Your task to perform on an android device: open wifi settings Image 0: 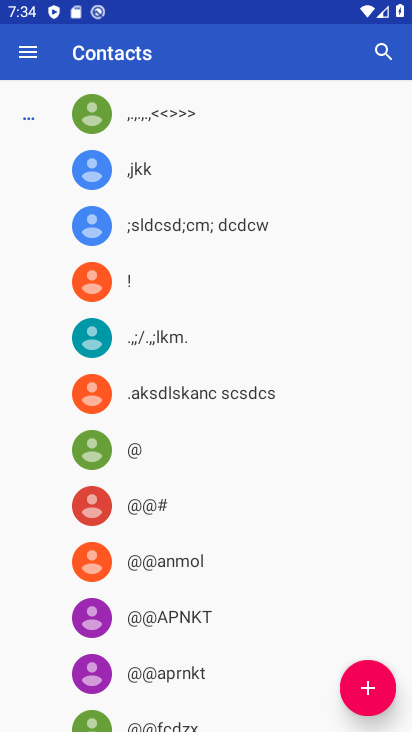
Step 0: press home button
Your task to perform on an android device: open wifi settings Image 1: 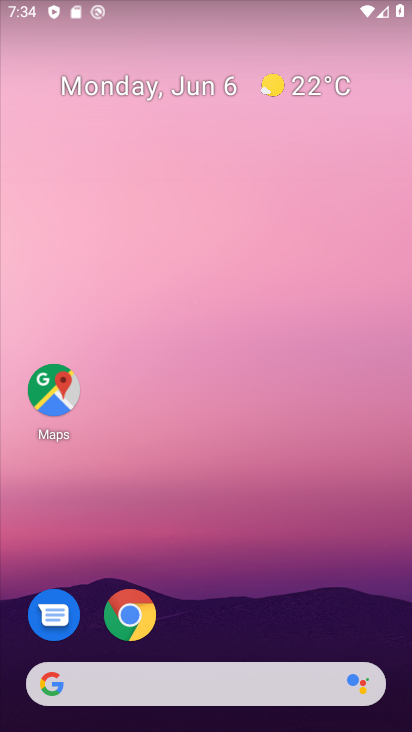
Step 1: drag from (392, 516) to (368, 27)
Your task to perform on an android device: open wifi settings Image 2: 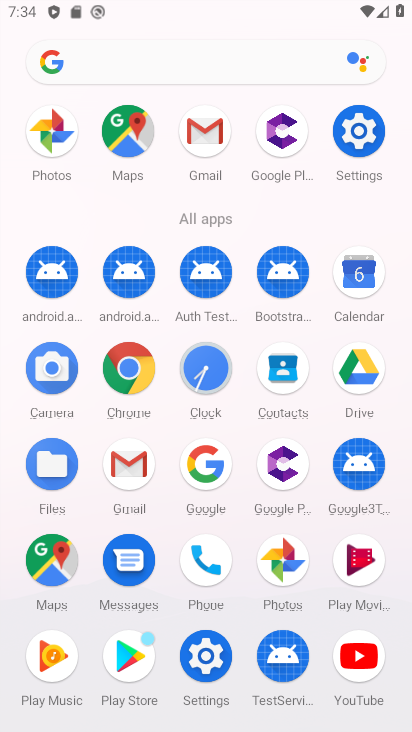
Step 2: click (357, 136)
Your task to perform on an android device: open wifi settings Image 3: 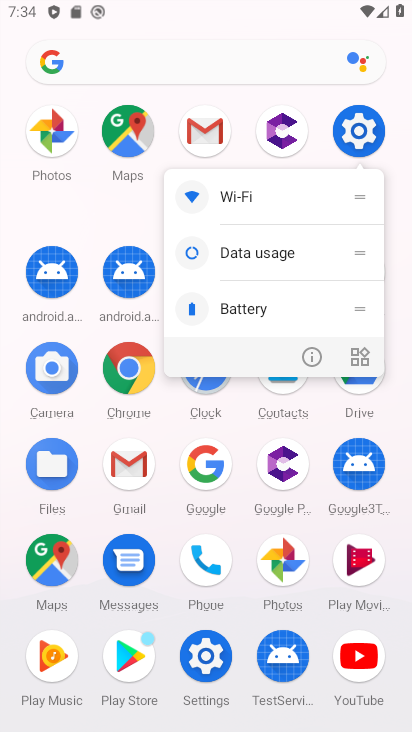
Step 3: click (357, 136)
Your task to perform on an android device: open wifi settings Image 4: 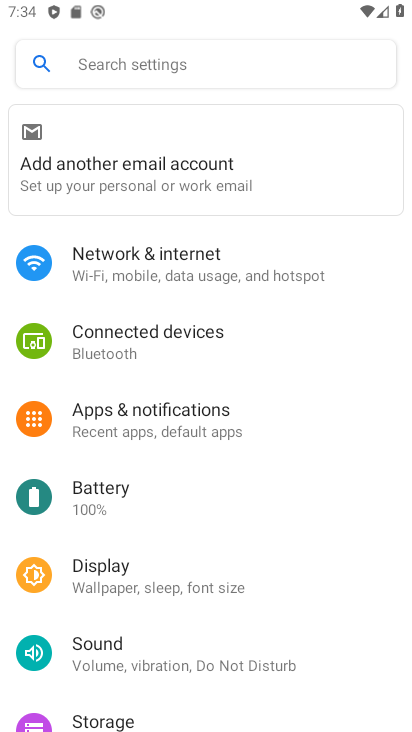
Step 4: click (182, 263)
Your task to perform on an android device: open wifi settings Image 5: 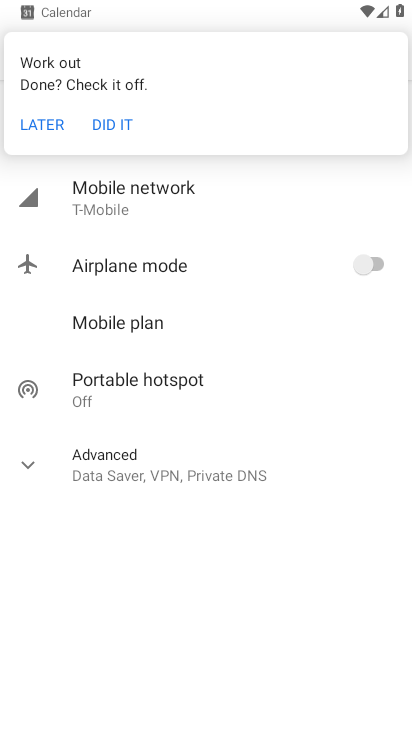
Step 5: click (157, 120)
Your task to perform on an android device: open wifi settings Image 6: 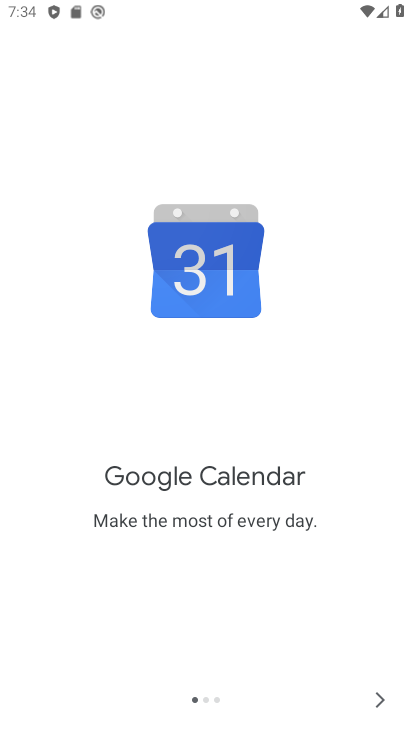
Step 6: click (107, 121)
Your task to perform on an android device: open wifi settings Image 7: 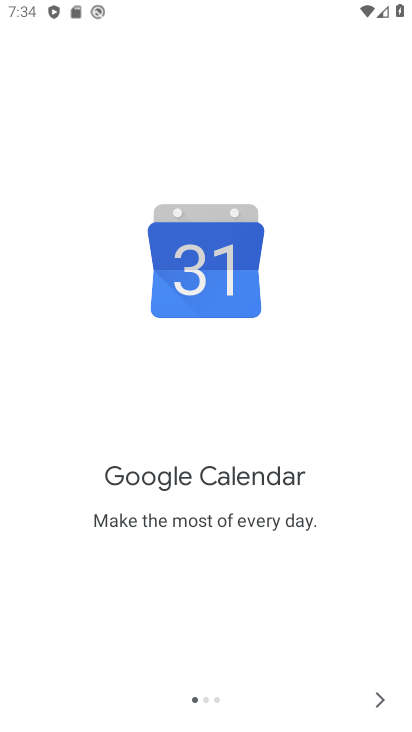
Step 7: press back button
Your task to perform on an android device: open wifi settings Image 8: 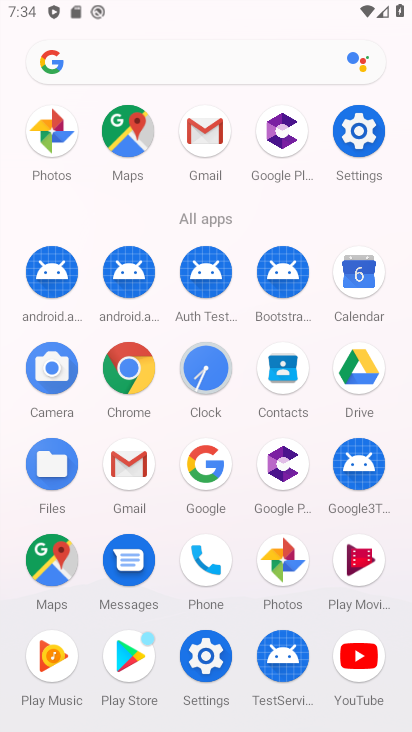
Step 8: click (367, 140)
Your task to perform on an android device: open wifi settings Image 9: 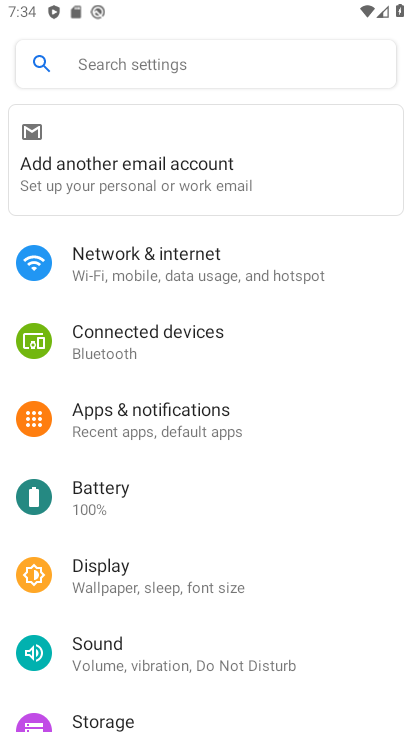
Step 9: click (175, 265)
Your task to perform on an android device: open wifi settings Image 10: 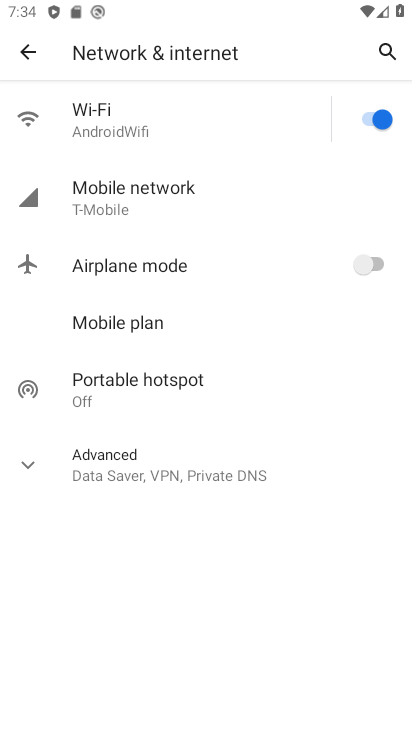
Step 10: click (234, 128)
Your task to perform on an android device: open wifi settings Image 11: 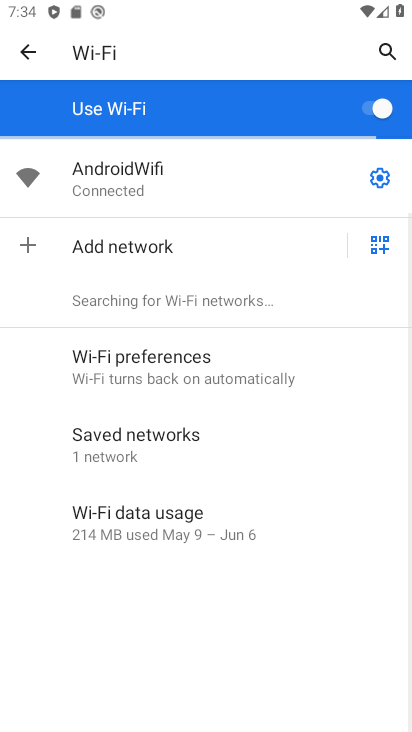
Step 11: task complete